Your task to perform on an android device: What's on my calendar tomorrow? Image 0: 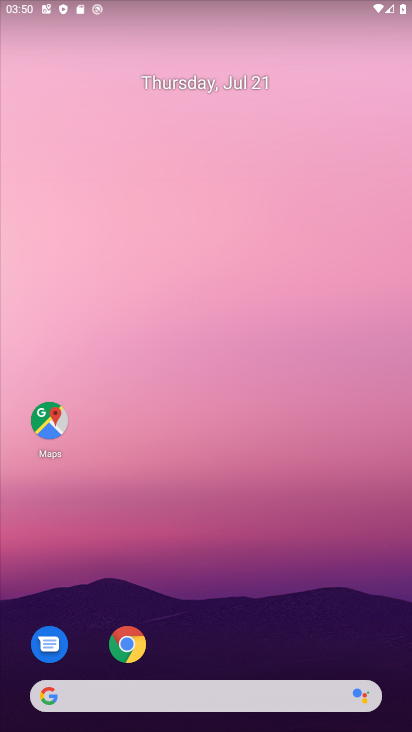
Step 0: drag from (276, 663) to (279, 44)
Your task to perform on an android device: What's on my calendar tomorrow? Image 1: 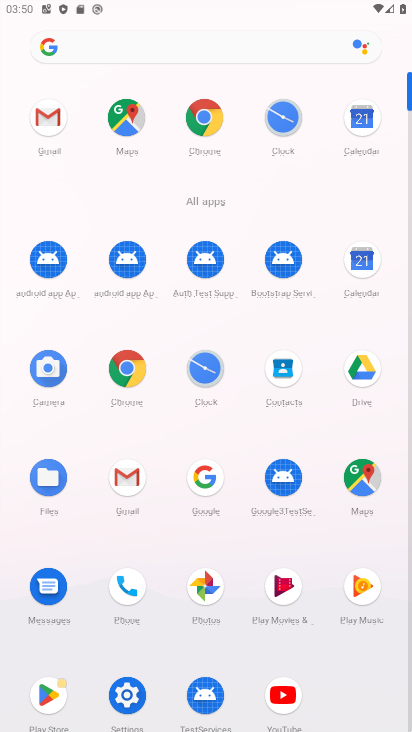
Step 1: click (363, 126)
Your task to perform on an android device: What's on my calendar tomorrow? Image 2: 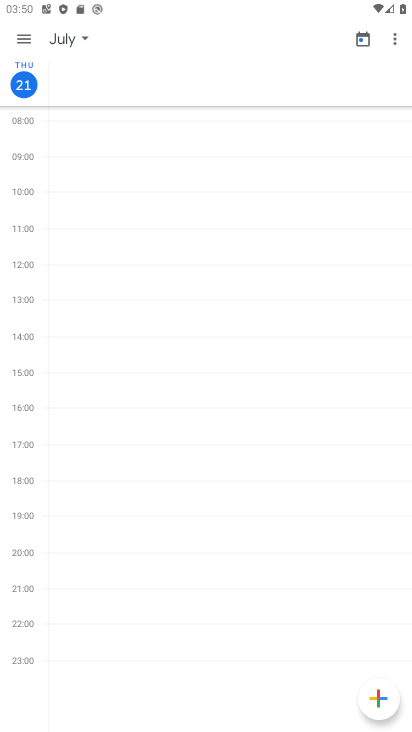
Step 2: click (82, 37)
Your task to perform on an android device: What's on my calendar tomorrow? Image 3: 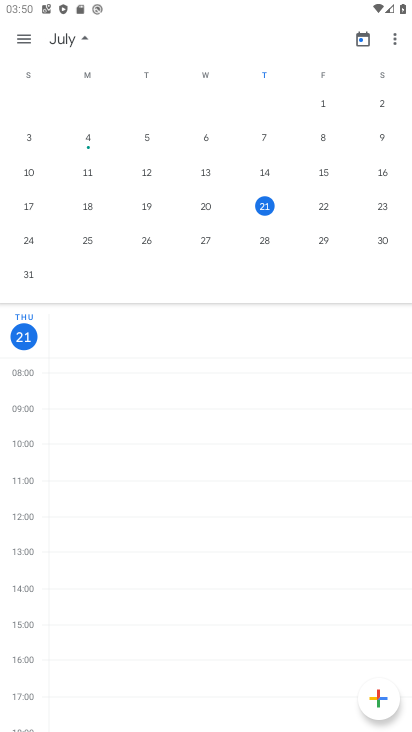
Step 3: click (325, 205)
Your task to perform on an android device: What's on my calendar tomorrow? Image 4: 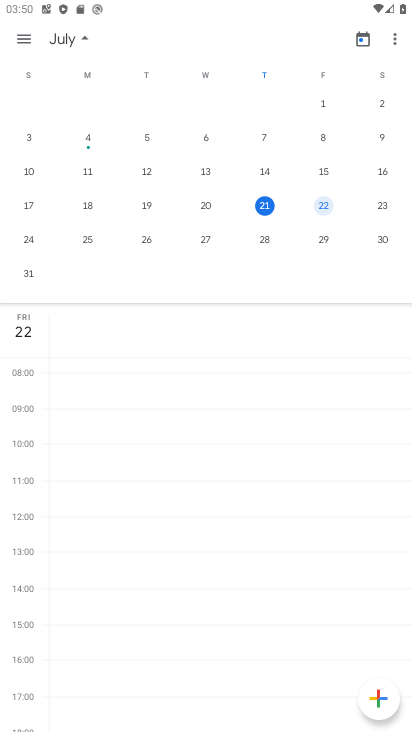
Step 4: task complete